Your task to perform on an android device: turn on improve location accuracy Image 0: 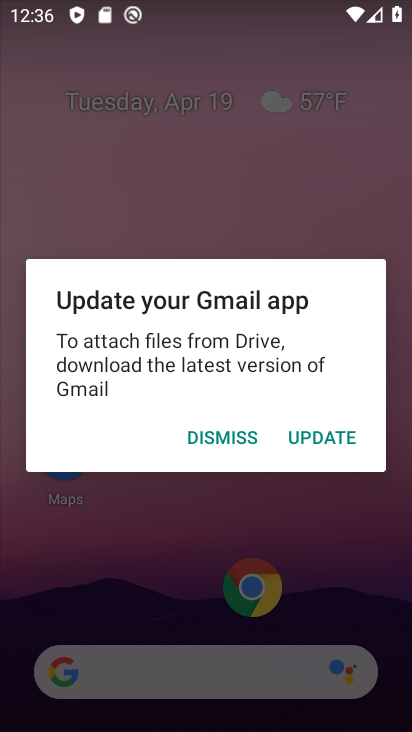
Step 0: press home button
Your task to perform on an android device: turn on improve location accuracy Image 1: 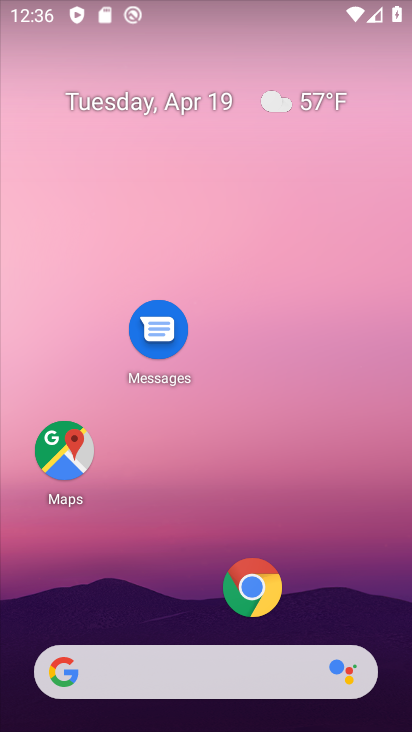
Step 1: drag from (204, 375) to (184, 127)
Your task to perform on an android device: turn on improve location accuracy Image 2: 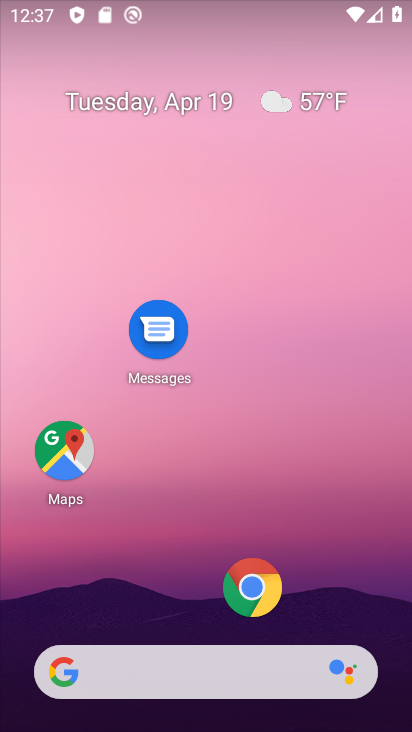
Step 2: drag from (195, 541) to (178, 118)
Your task to perform on an android device: turn on improve location accuracy Image 3: 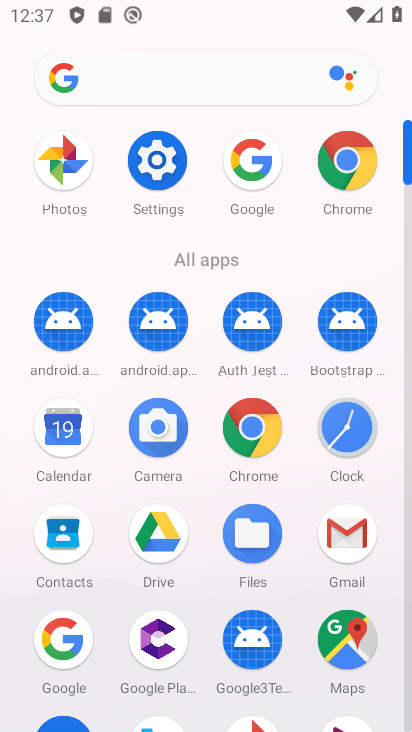
Step 3: click (155, 159)
Your task to perform on an android device: turn on improve location accuracy Image 4: 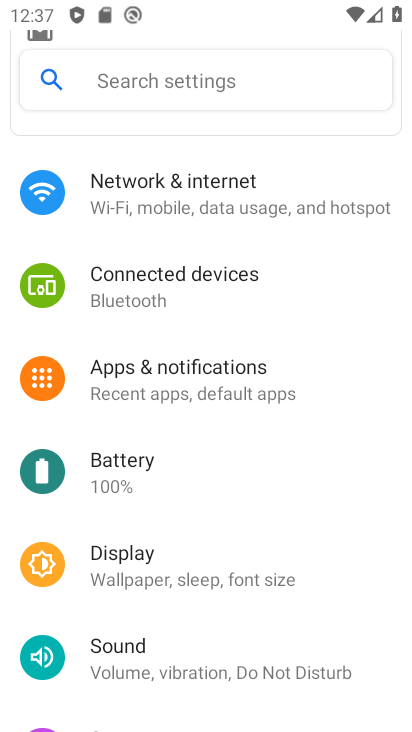
Step 4: drag from (255, 536) to (231, 239)
Your task to perform on an android device: turn on improve location accuracy Image 5: 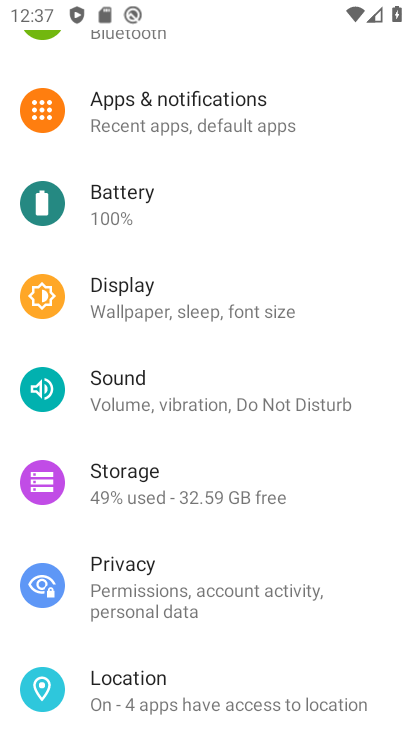
Step 5: click (178, 689)
Your task to perform on an android device: turn on improve location accuracy Image 6: 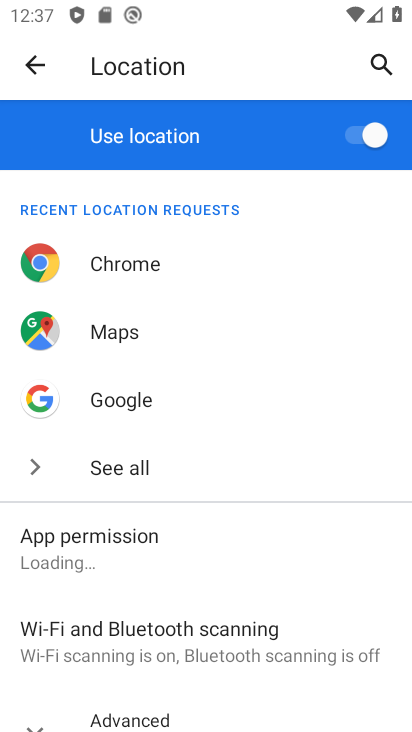
Step 6: drag from (254, 538) to (232, 240)
Your task to perform on an android device: turn on improve location accuracy Image 7: 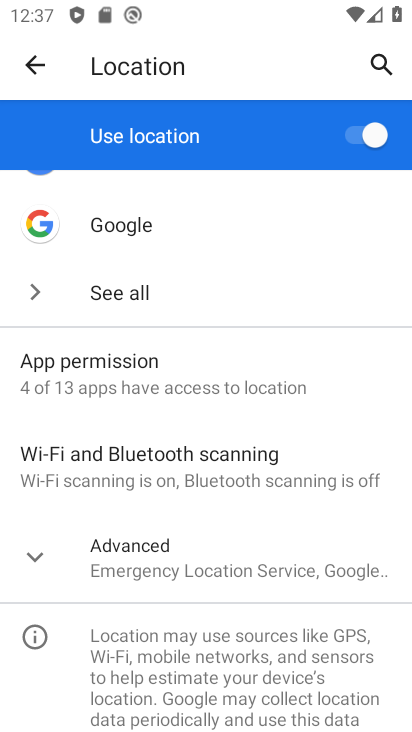
Step 7: click (118, 554)
Your task to perform on an android device: turn on improve location accuracy Image 8: 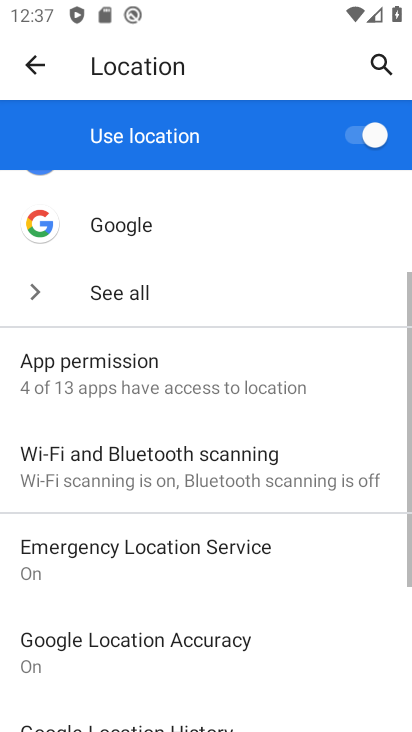
Step 8: task complete